Your task to perform on an android device: all mails in gmail Image 0: 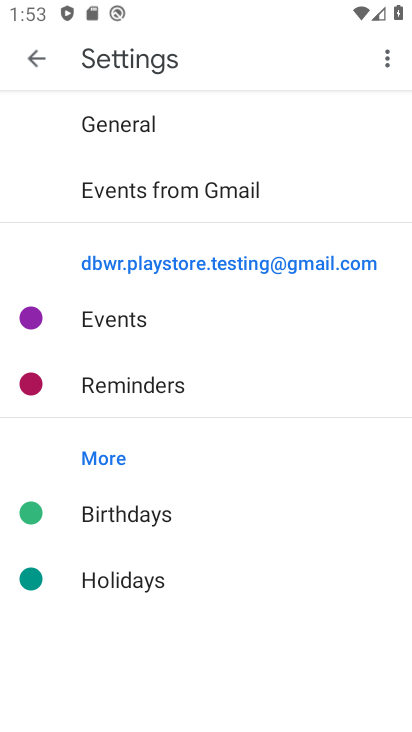
Step 0: press home button
Your task to perform on an android device: all mails in gmail Image 1: 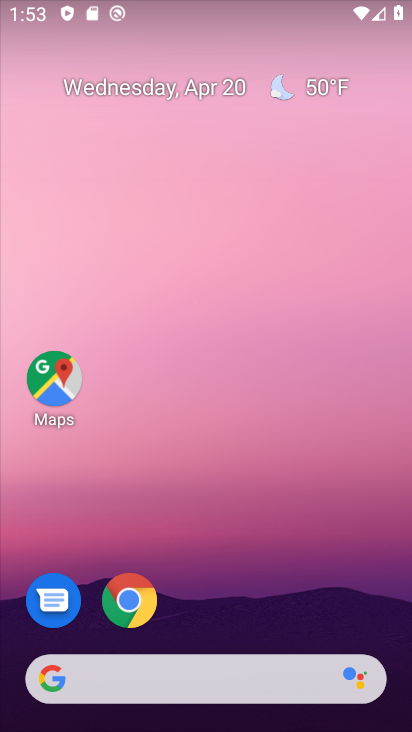
Step 1: drag from (251, 635) to (265, 125)
Your task to perform on an android device: all mails in gmail Image 2: 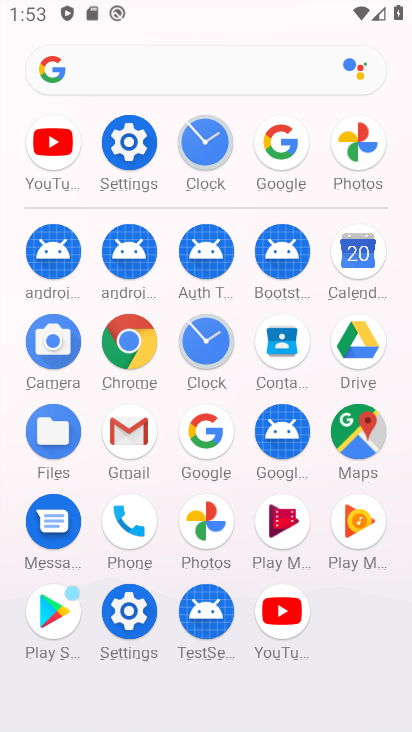
Step 2: click (135, 430)
Your task to perform on an android device: all mails in gmail Image 3: 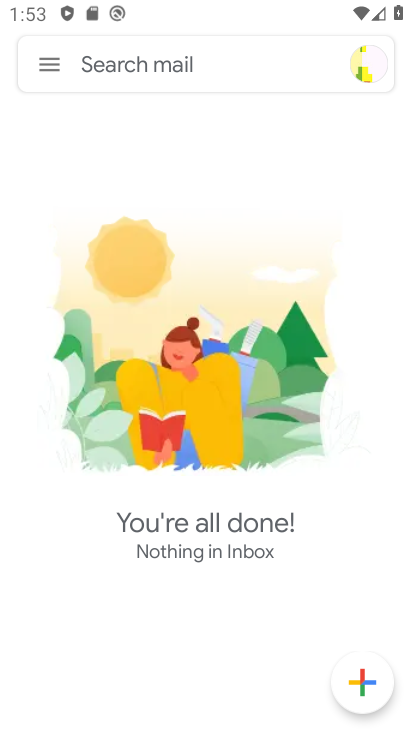
Step 3: click (41, 69)
Your task to perform on an android device: all mails in gmail Image 4: 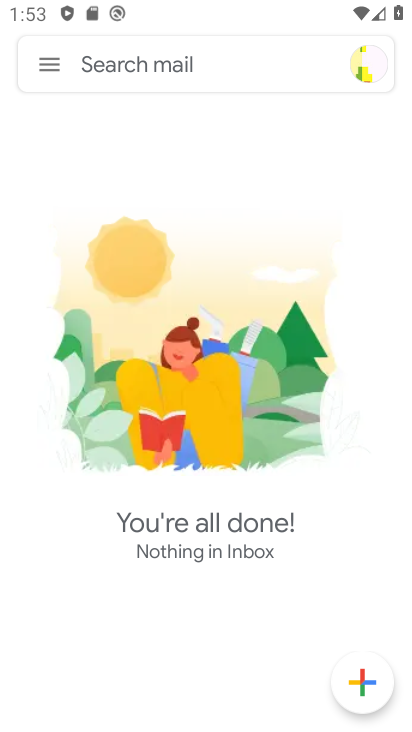
Step 4: click (50, 52)
Your task to perform on an android device: all mails in gmail Image 5: 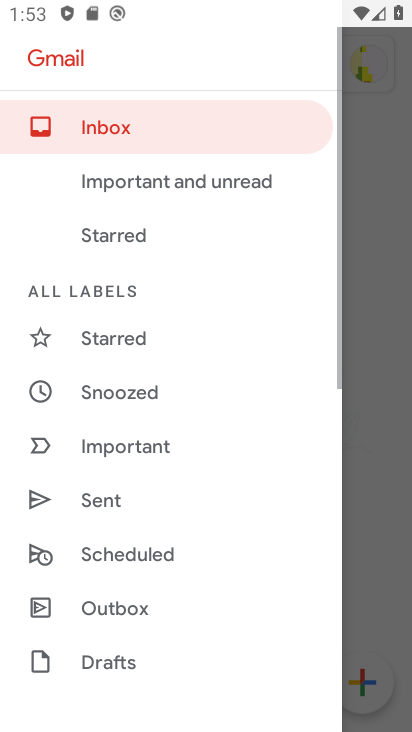
Step 5: drag from (216, 635) to (228, 164)
Your task to perform on an android device: all mails in gmail Image 6: 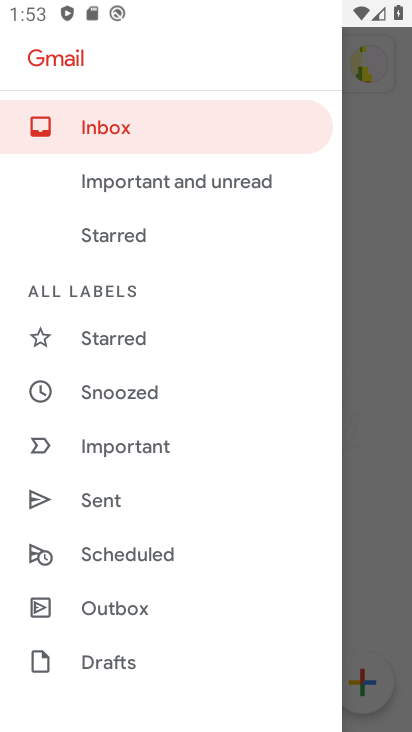
Step 6: drag from (214, 569) to (226, 117)
Your task to perform on an android device: all mails in gmail Image 7: 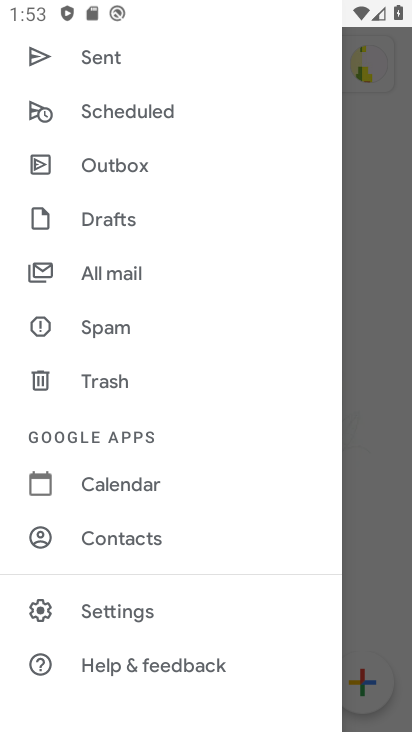
Step 7: click (147, 266)
Your task to perform on an android device: all mails in gmail Image 8: 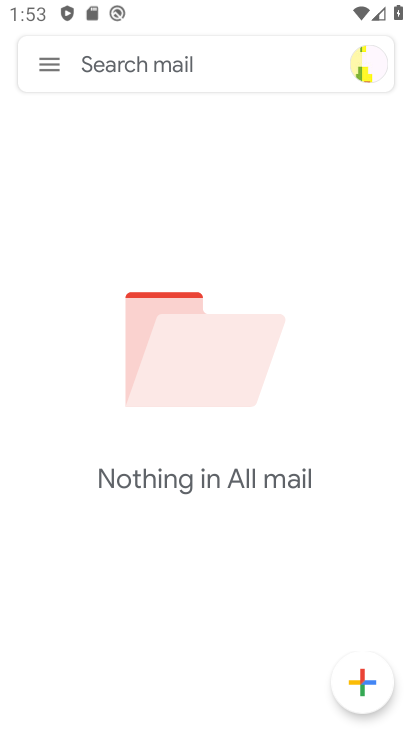
Step 8: task complete